Your task to perform on an android device: Open Amazon Image 0: 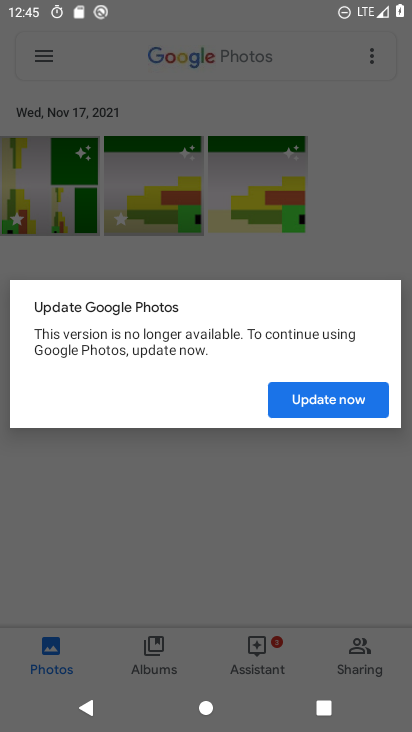
Step 0: press home button
Your task to perform on an android device: Open Amazon Image 1: 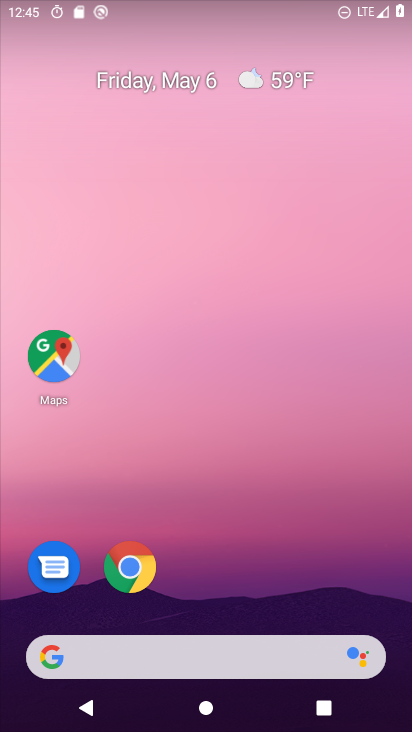
Step 1: click (134, 571)
Your task to perform on an android device: Open Amazon Image 2: 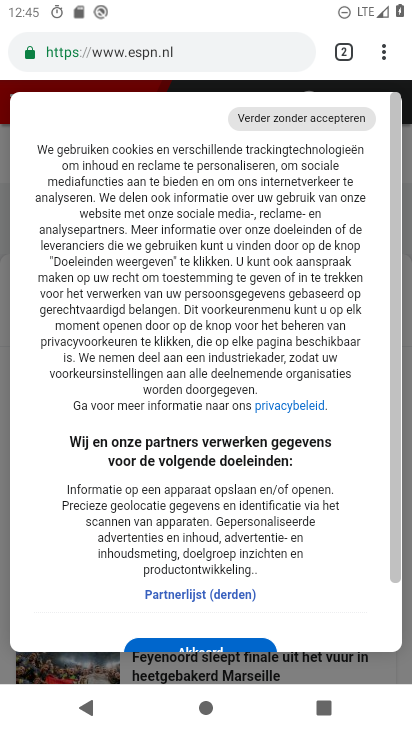
Step 2: click (140, 52)
Your task to perform on an android device: Open Amazon Image 3: 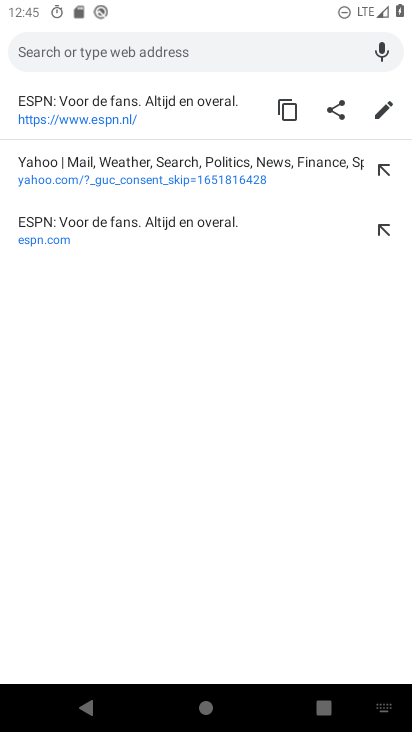
Step 3: type "amazon"
Your task to perform on an android device: Open Amazon Image 4: 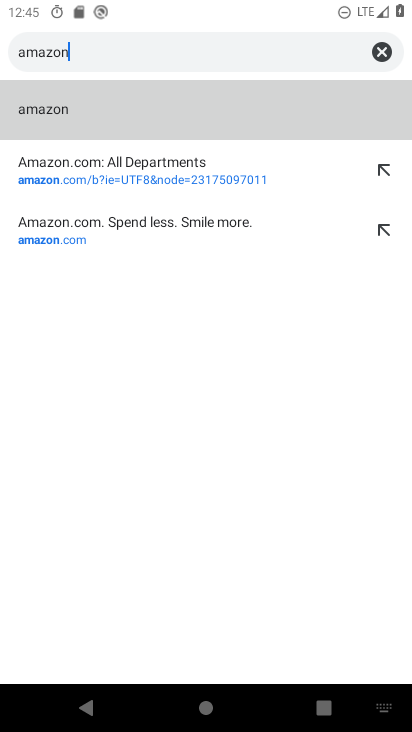
Step 4: click (26, 121)
Your task to perform on an android device: Open Amazon Image 5: 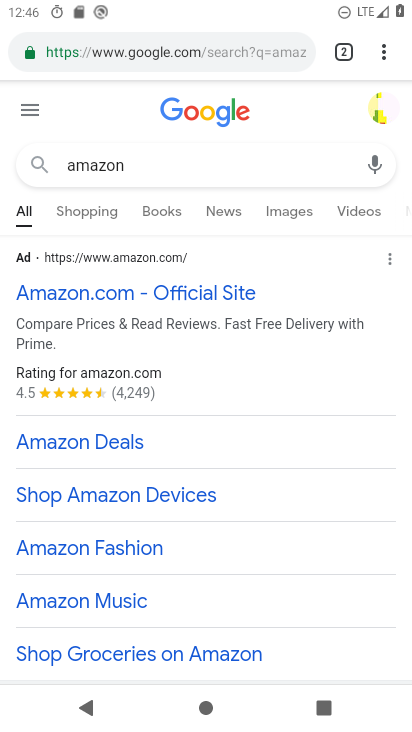
Step 5: click (57, 298)
Your task to perform on an android device: Open Amazon Image 6: 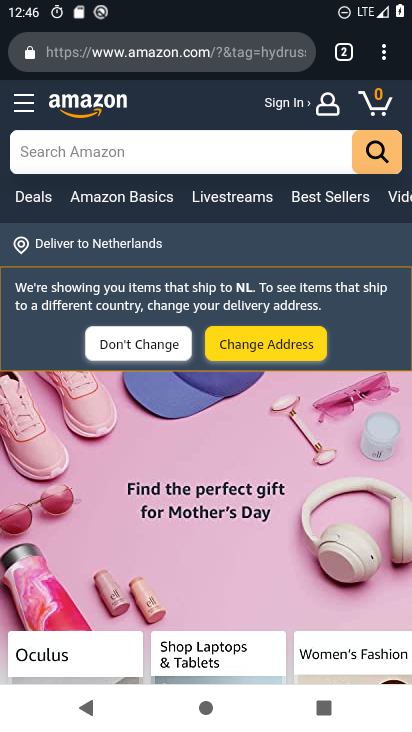
Step 6: task complete